Your task to perform on an android device: delete the emails in spam in the gmail app Image 0: 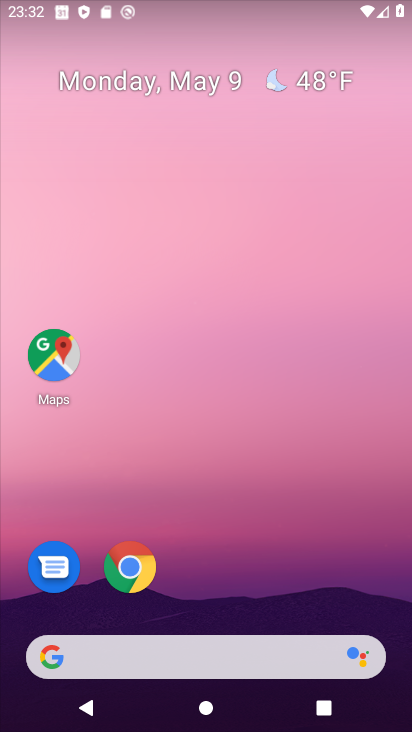
Step 0: drag from (223, 587) to (171, 96)
Your task to perform on an android device: delete the emails in spam in the gmail app Image 1: 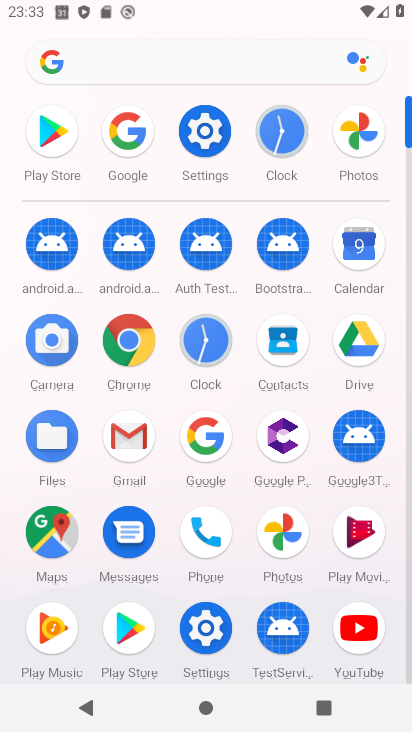
Step 1: click (122, 436)
Your task to perform on an android device: delete the emails in spam in the gmail app Image 2: 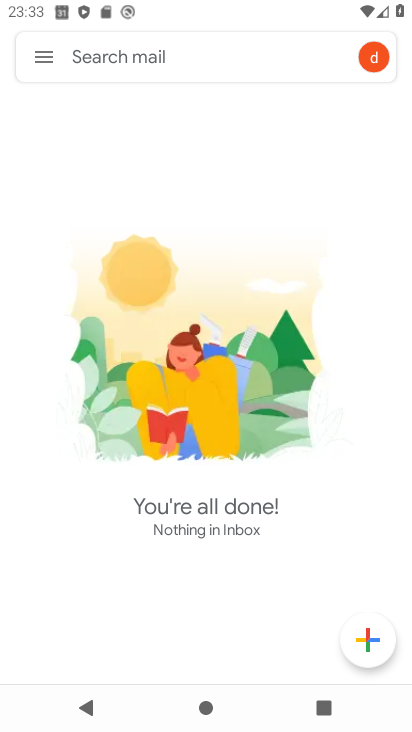
Step 2: click (47, 57)
Your task to perform on an android device: delete the emails in spam in the gmail app Image 3: 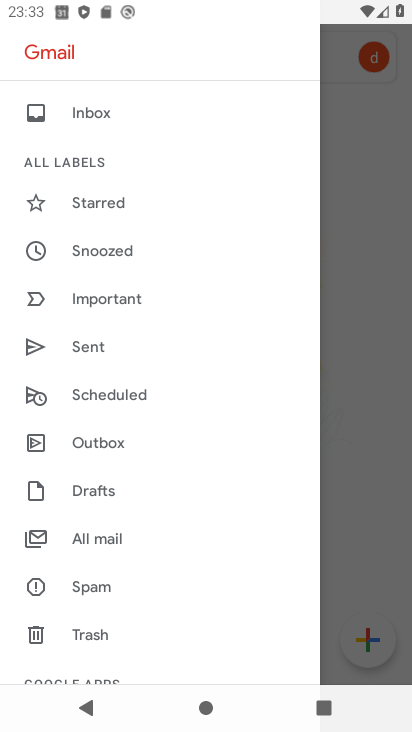
Step 3: click (96, 582)
Your task to perform on an android device: delete the emails in spam in the gmail app Image 4: 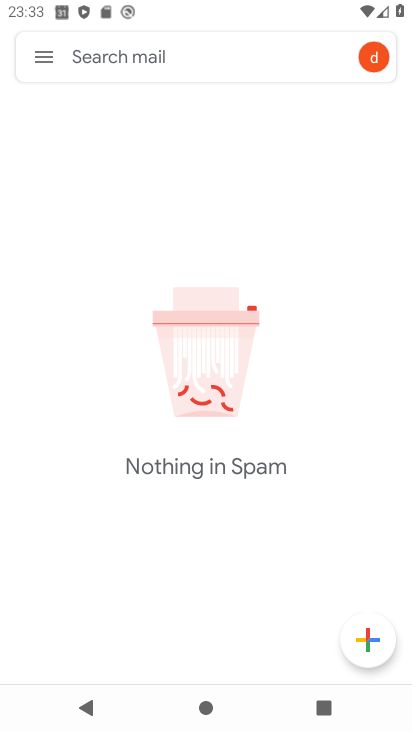
Step 4: task complete